Your task to perform on an android device: What's the weather today? Image 0: 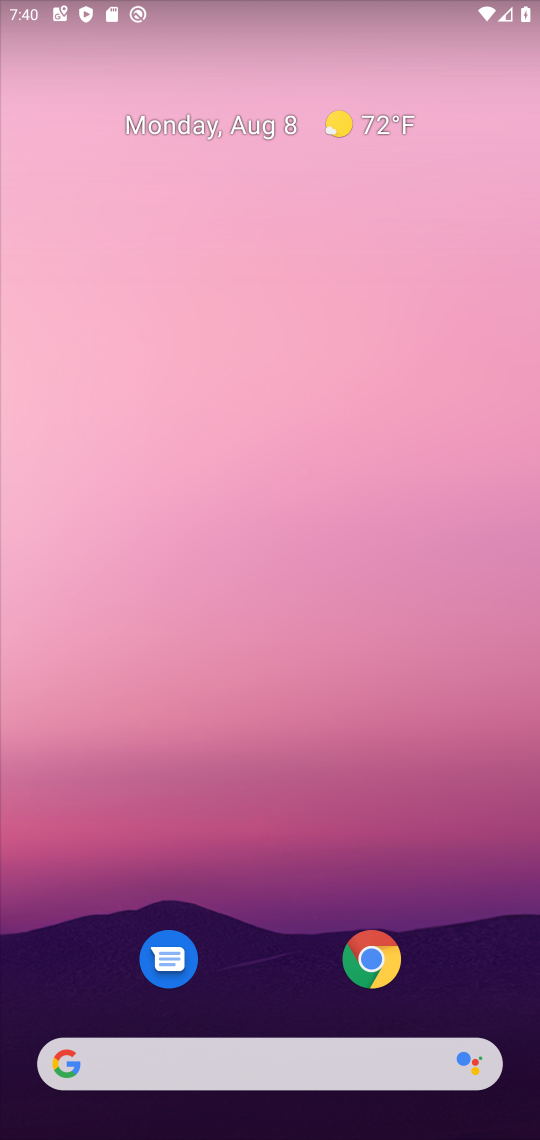
Step 0: drag from (489, 977) to (210, 12)
Your task to perform on an android device: What's the weather today? Image 1: 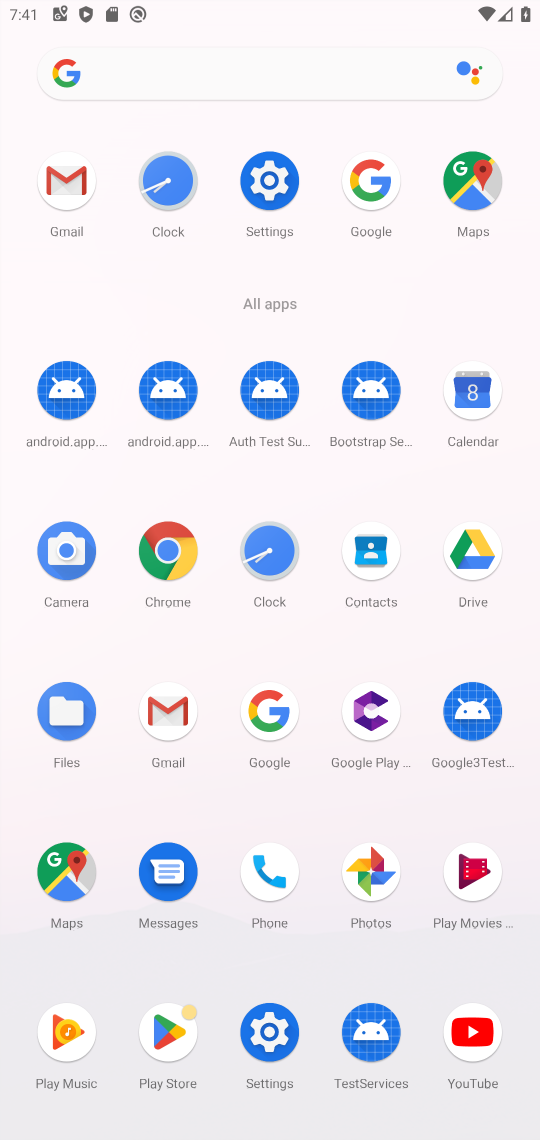
Step 1: click (265, 726)
Your task to perform on an android device: What's the weather today? Image 2: 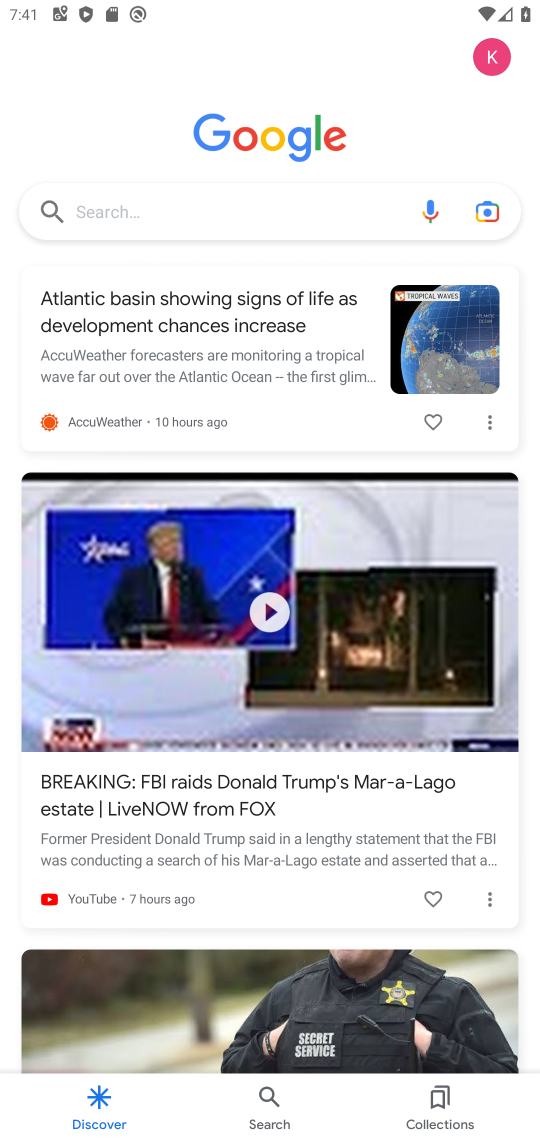
Step 2: click (129, 222)
Your task to perform on an android device: What's the weather today? Image 3: 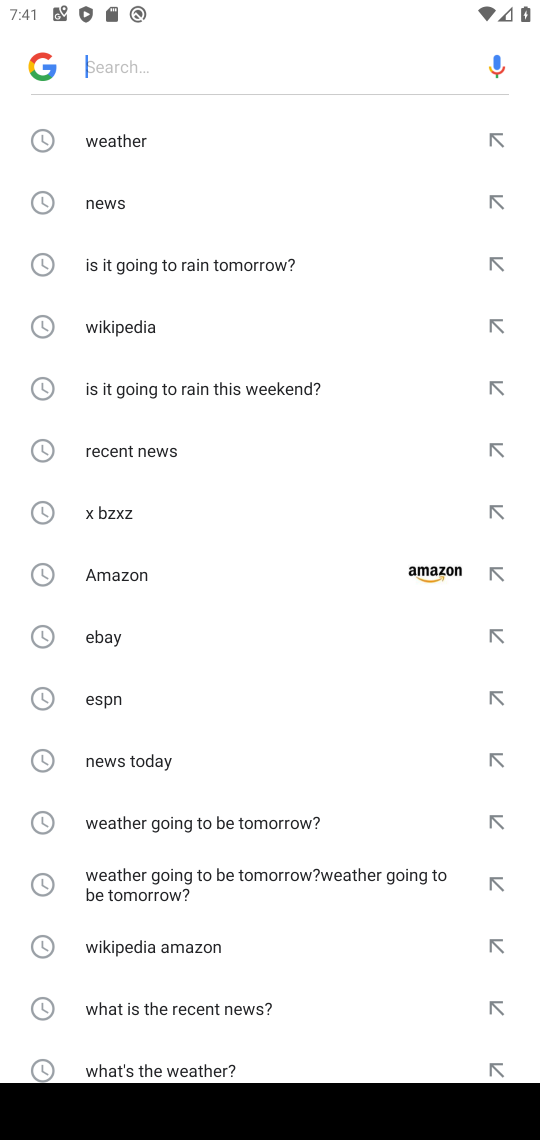
Step 3: type "What's the weather today?"
Your task to perform on an android device: What's the weather today? Image 4: 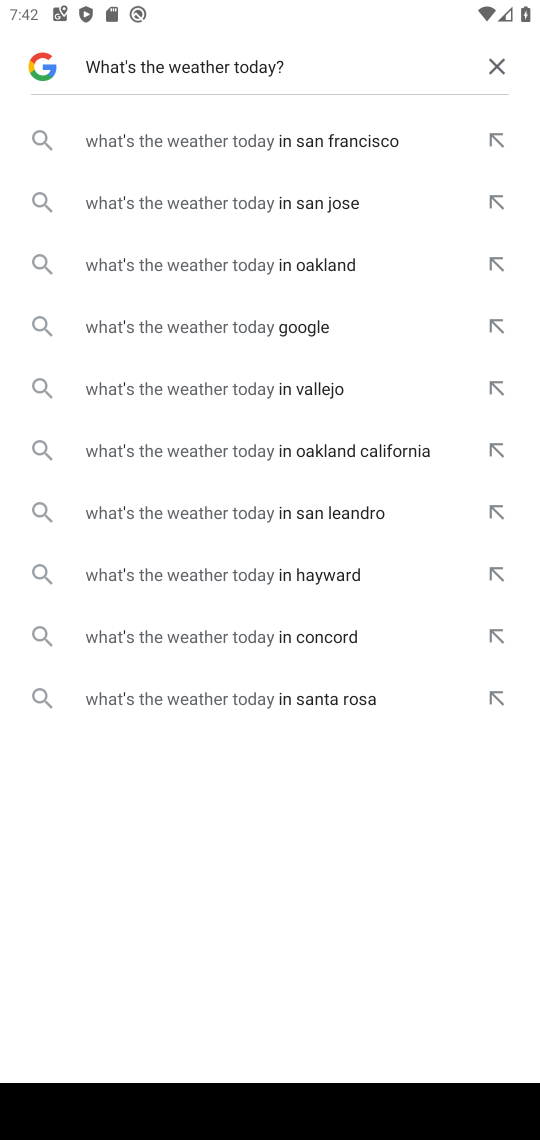
Step 4: click (211, 320)
Your task to perform on an android device: What's the weather today? Image 5: 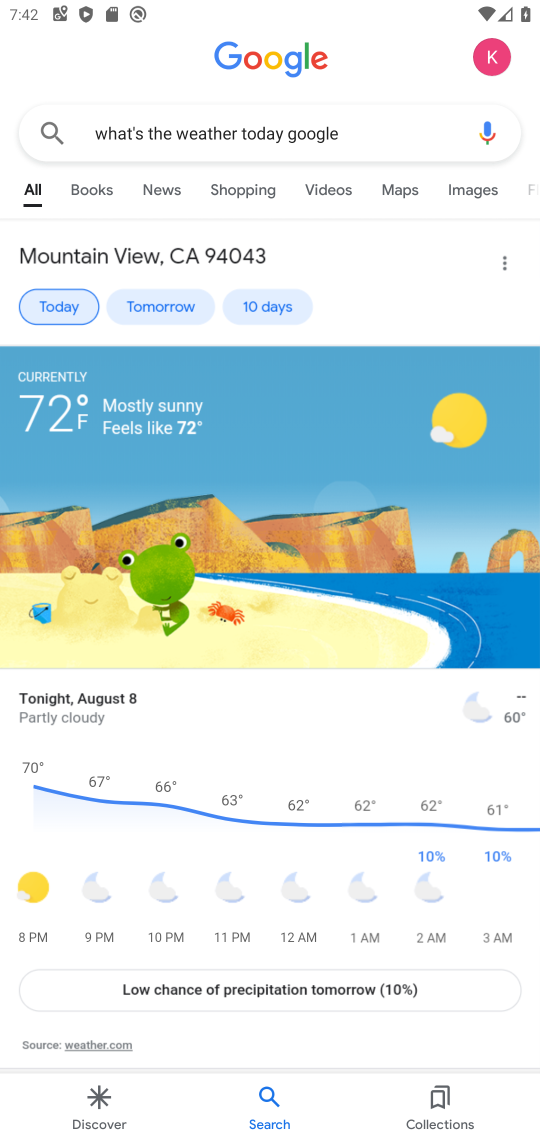
Step 5: task complete